Your task to perform on an android device: add a contact Image 0: 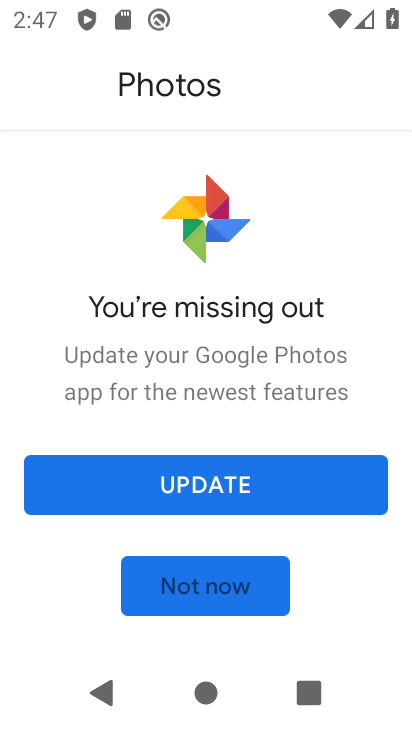
Step 0: press home button
Your task to perform on an android device: add a contact Image 1: 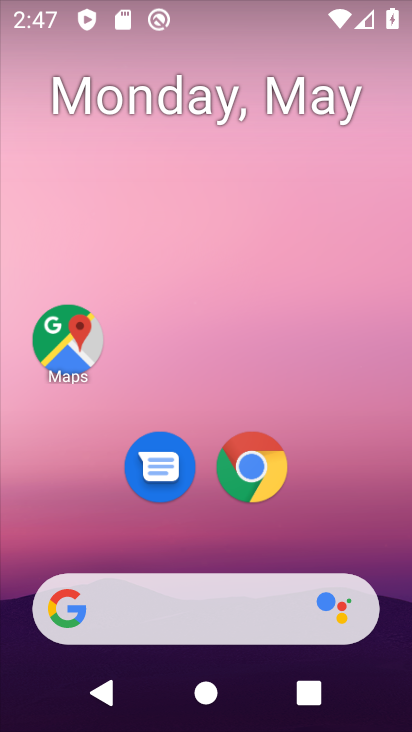
Step 1: drag from (313, 547) to (272, 45)
Your task to perform on an android device: add a contact Image 2: 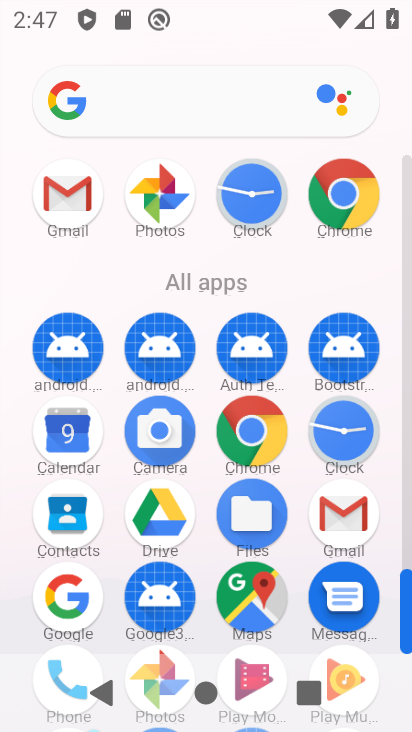
Step 2: click (67, 522)
Your task to perform on an android device: add a contact Image 3: 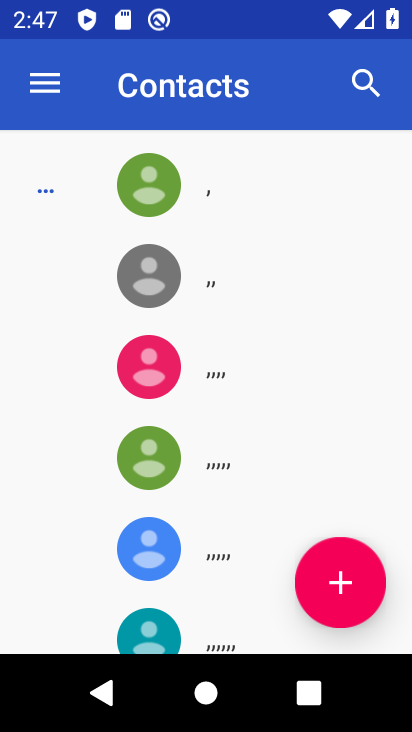
Step 3: click (341, 597)
Your task to perform on an android device: add a contact Image 4: 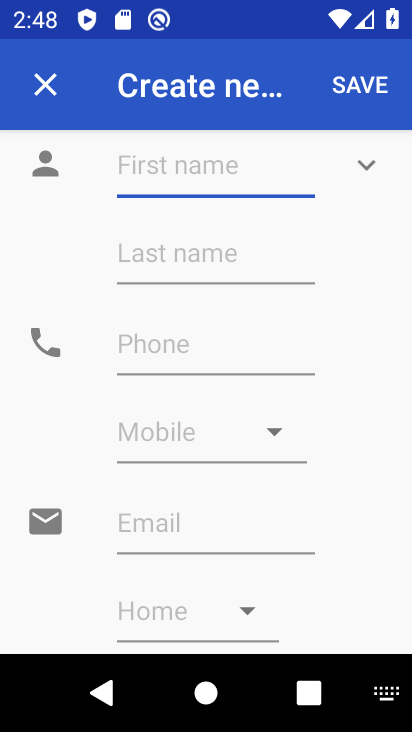
Step 4: type "bnjklmlkjiophj"
Your task to perform on an android device: add a contact Image 5: 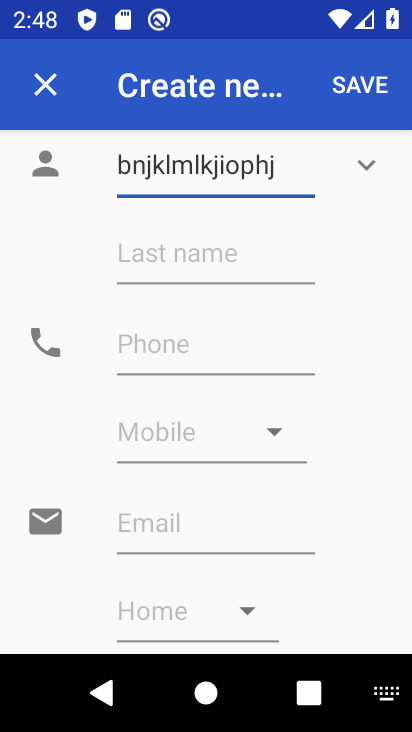
Step 5: click (148, 361)
Your task to perform on an android device: add a contact Image 6: 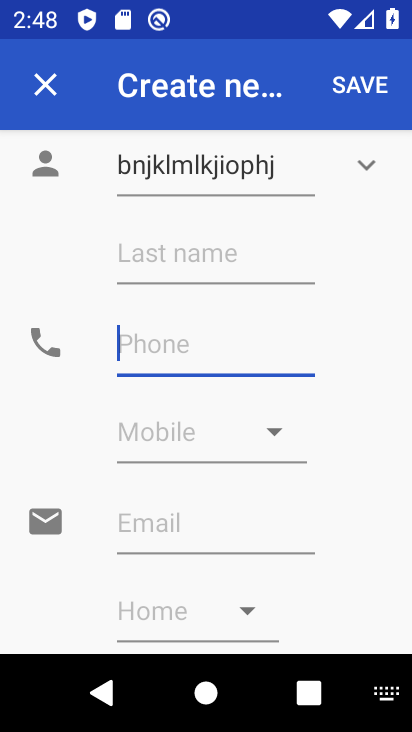
Step 6: type "6759898989"
Your task to perform on an android device: add a contact Image 7: 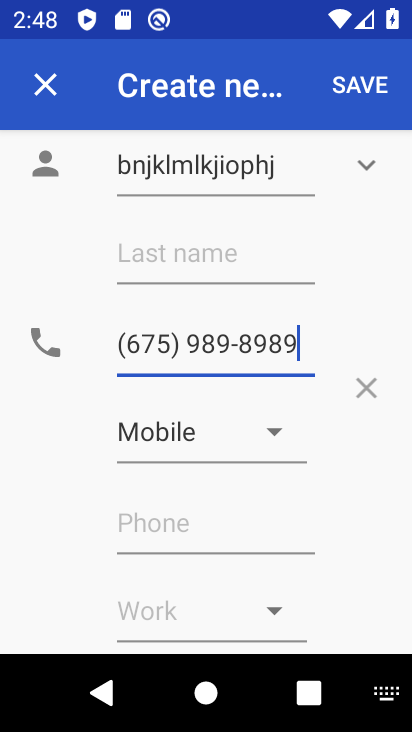
Step 7: click (346, 81)
Your task to perform on an android device: add a contact Image 8: 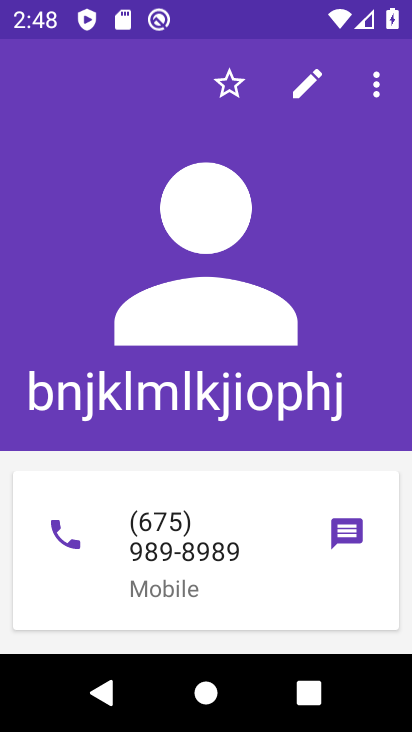
Step 8: task complete